Your task to perform on an android device: turn off improve location accuracy Image 0: 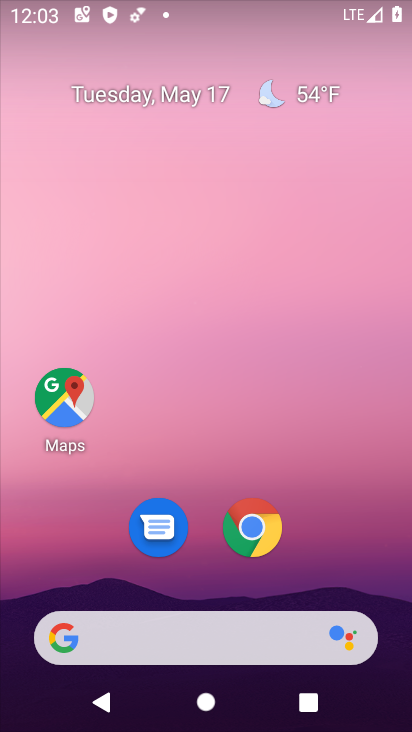
Step 0: drag from (249, 658) to (259, 220)
Your task to perform on an android device: turn off improve location accuracy Image 1: 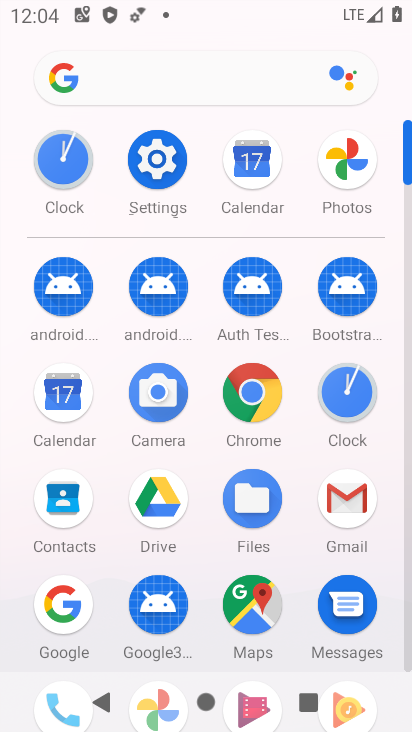
Step 1: click (153, 169)
Your task to perform on an android device: turn off improve location accuracy Image 2: 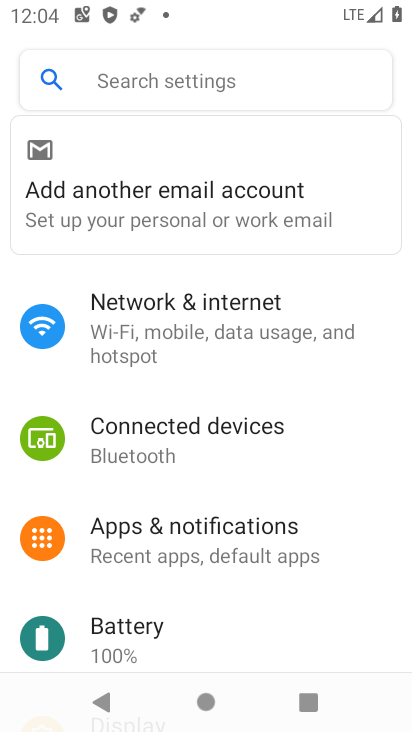
Step 2: click (142, 93)
Your task to perform on an android device: turn off improve location accuracy Image 3: 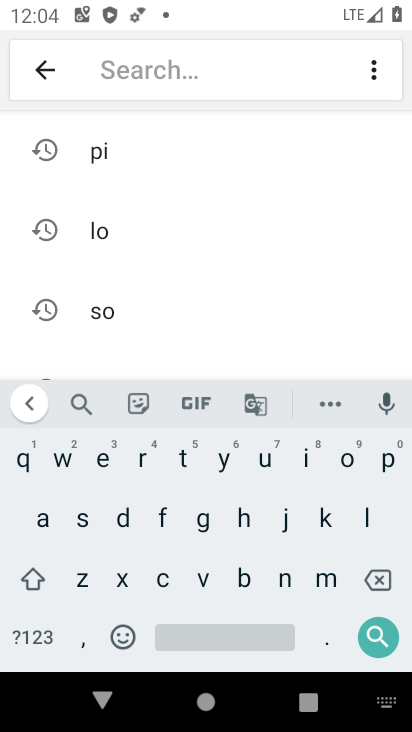
Step 3: click (125, 238)
Your task to perform on an android device: turn off improve location accuracy Image 4: 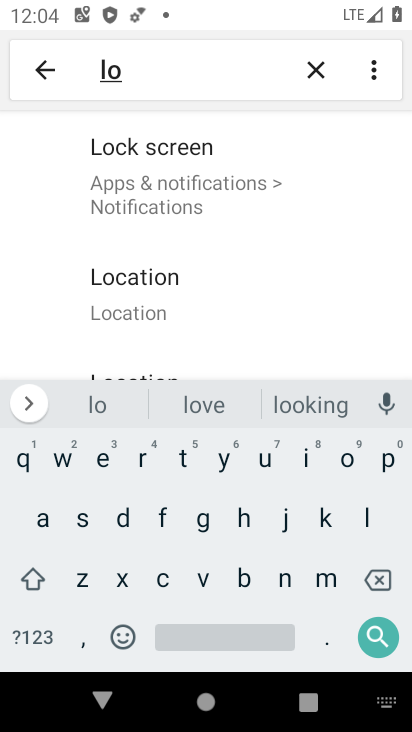
Step 4: click (185, 287)
Your task to perform on an android device: turn off improve location accuracy Image 5: 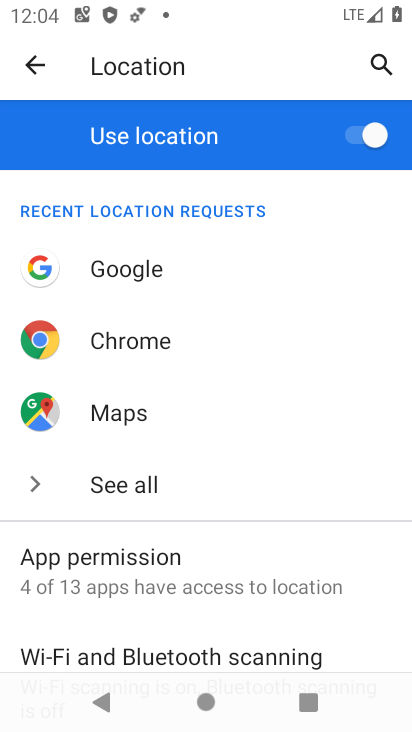
Step 5: drag from (226, 553) to (215, 372)
Your task to perform on an android device: turn off improve location accuracy Image 6: 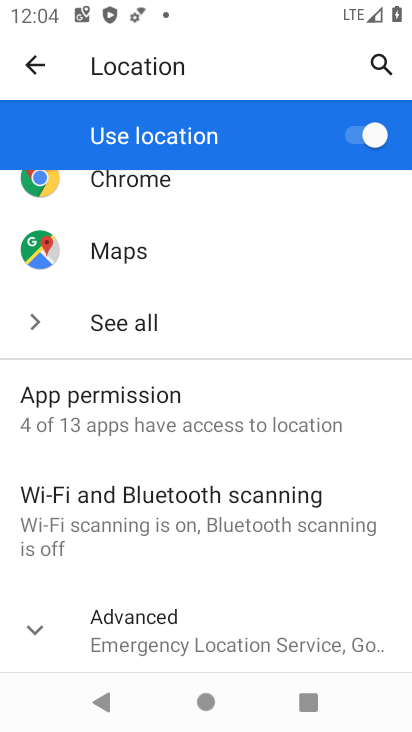
Step 6: click (85, 630)
Your task to perform on an android device: turn off improve location accuracy Image 7: 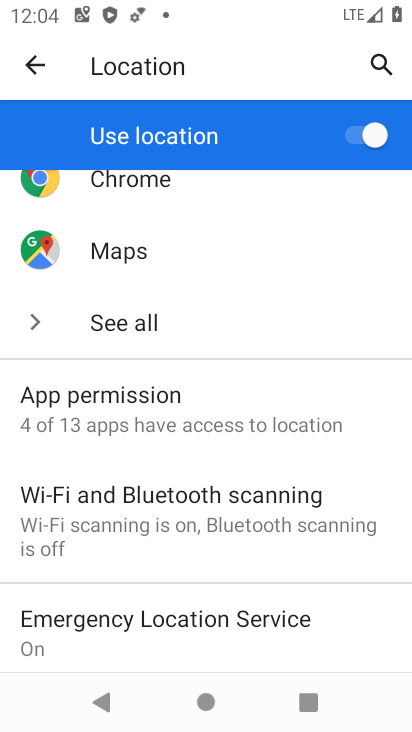
Step 7: drag from (185, 605) to (165, 410)
Your task to perform on an android device: turn off improve location accuracy Image 8: 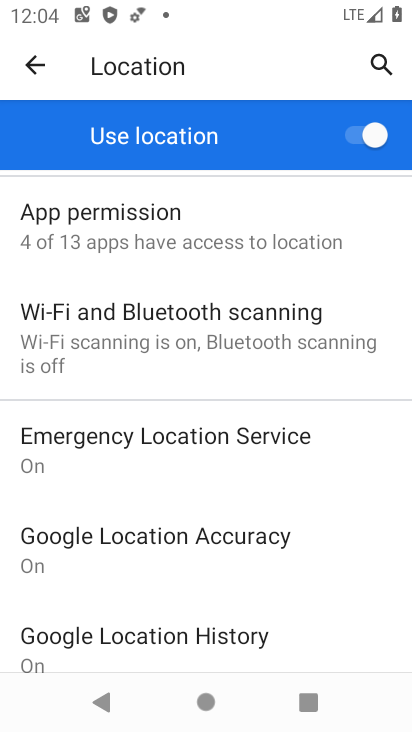
Step 8: click (184, 546)
Your task to perform on an android device: turn off improve location accuracy Image 9: 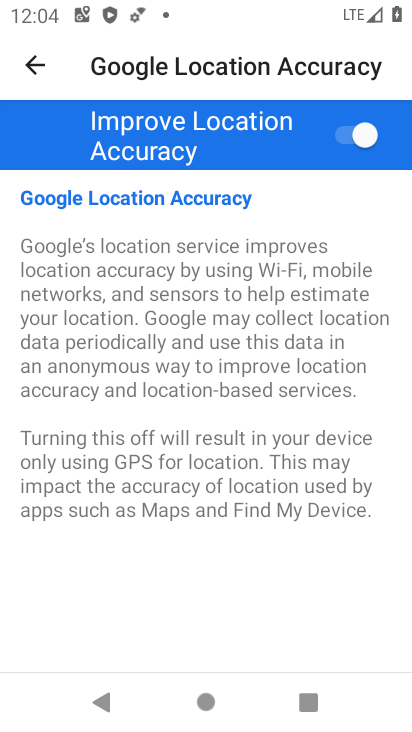
Step 9: click (348, 144)
Your task to perform on an android device: turn off improve location accuracy Image 10: 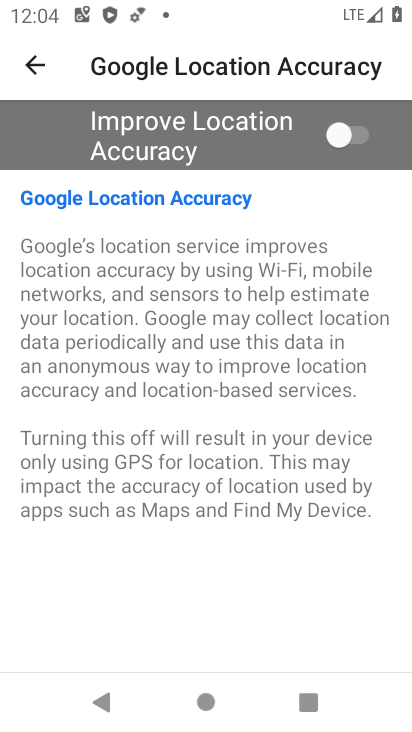
Step 10: task complete